Your task to perform on an android device: What's the news about the US stock market? Image 0: 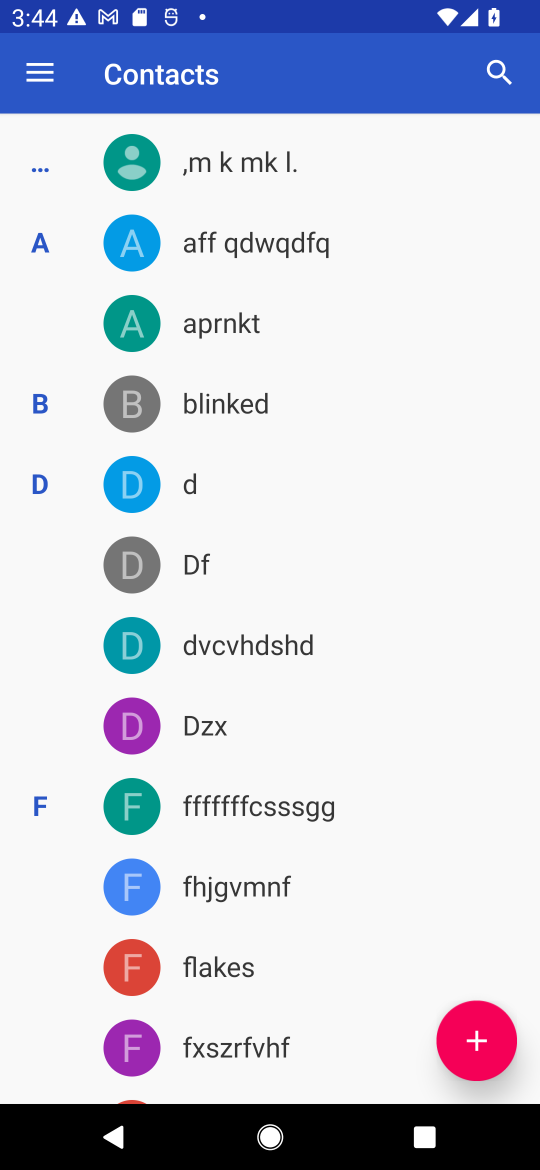
Step 0: press home button
Your task to perform on an android device: What's the news about the US stock market? Image 1: 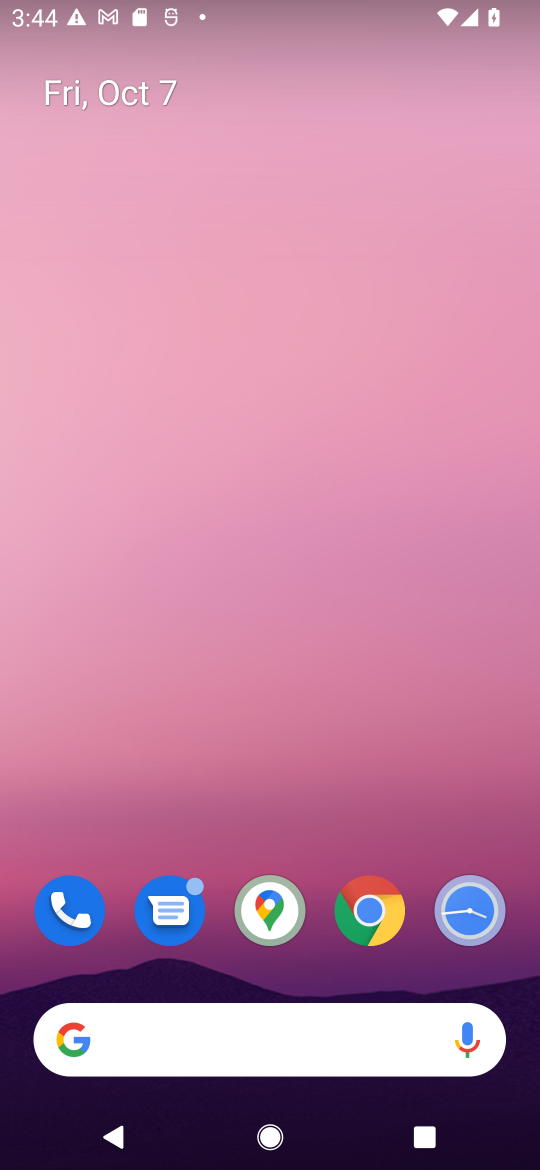
Step 1: drag from (272, 946) to (289, 359)
Your task to perform on an android device: What's the news about the US stock market? Image 2: 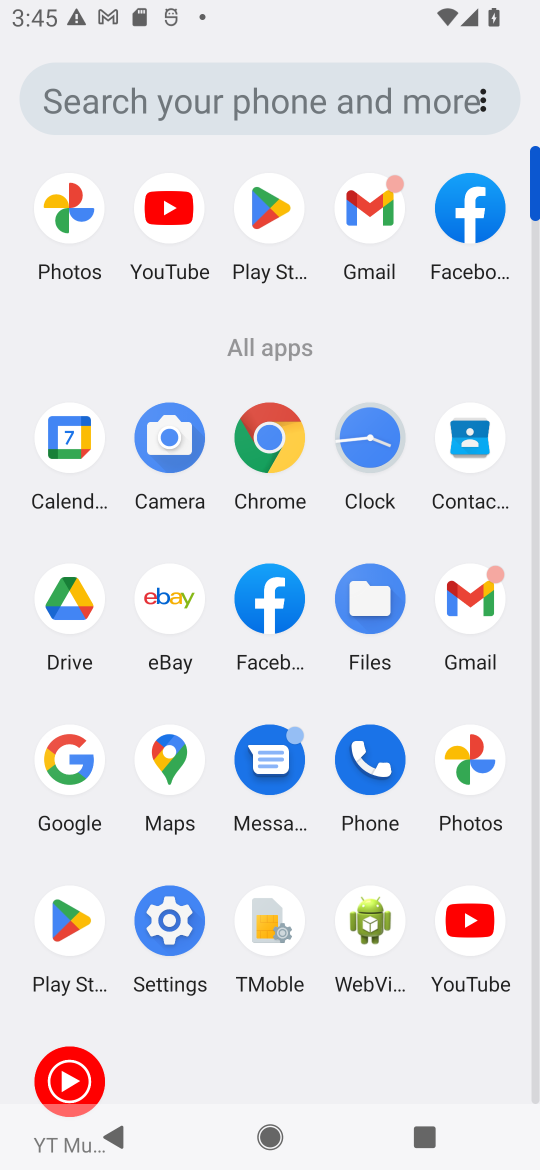
Step 2: click (66, 751)
Your task to perform on an android device: What's the news about the US stock market? Image 3: 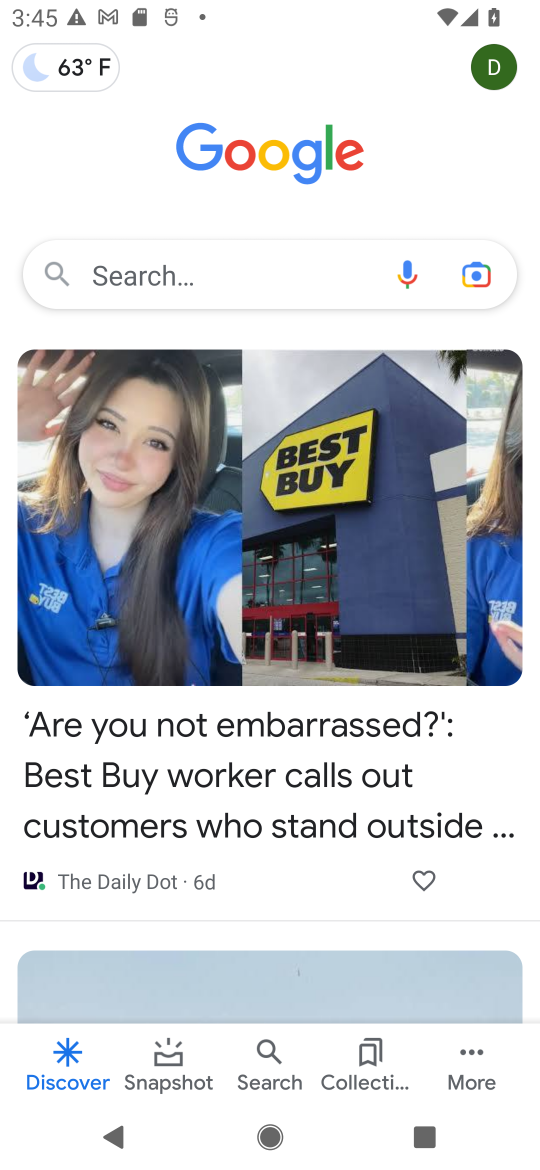
Step 3: click (199, 259)
Your task to perform on an android device: What's the news about the US stock market? Image 4: 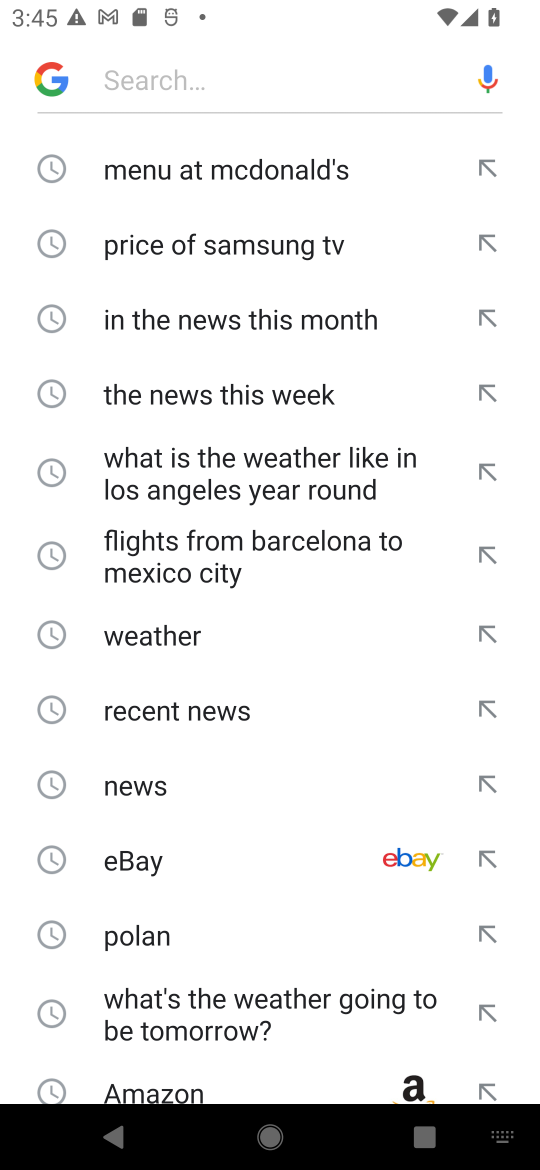
Step 4: click (139, 88)
Your task to perform on an android device: What's the news about the US stock market? Image 5: 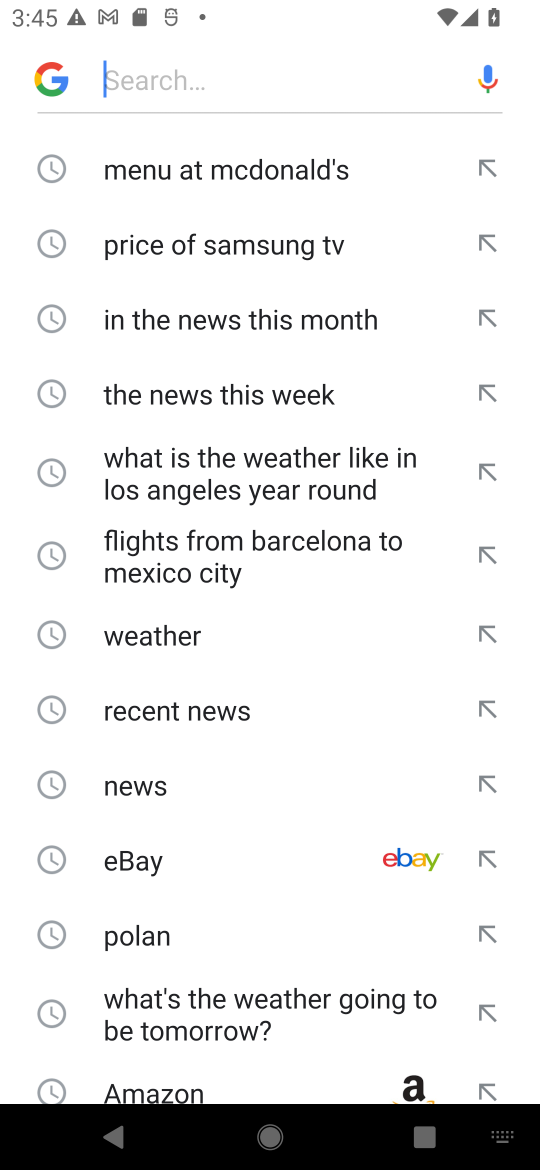
Step 5: type "the news about the US stock market"
Your task to perform on an android device: What's the news about the US stock market? Image 6: 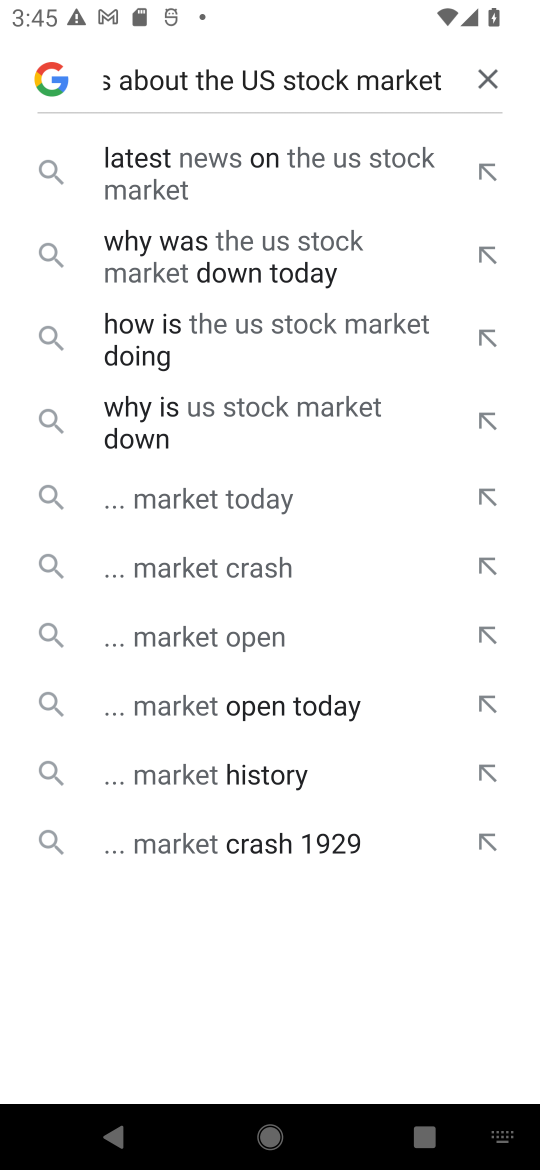
Step 6: click (324, 170)
Your task to perform on an android device: What's the news about the US stock market? Image 7: 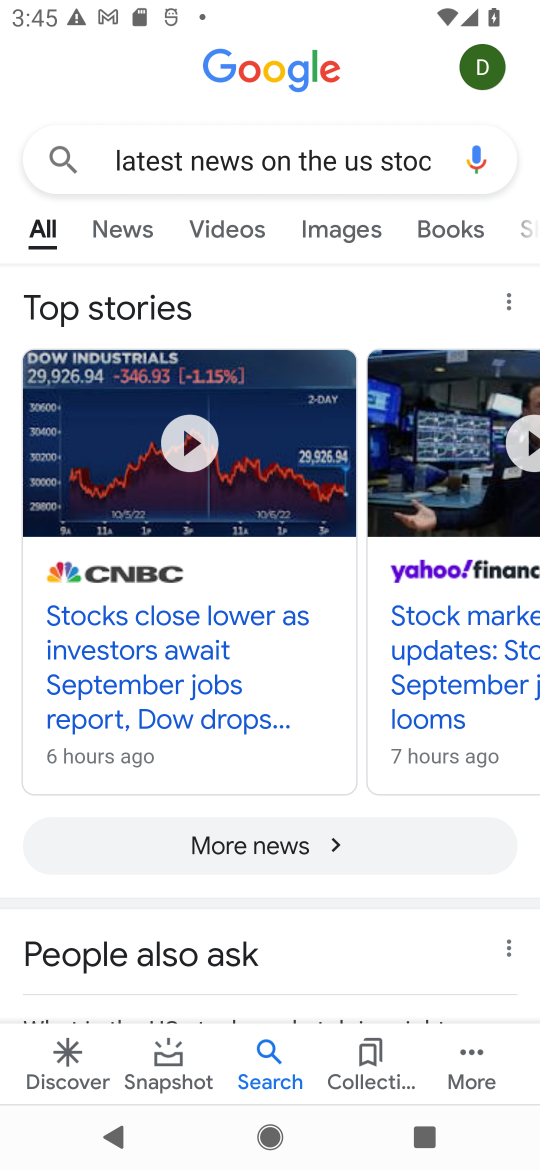
Step 7: click (131, 236)
Your task to perform on an android device: What's the news about the US stock market? Image 8: 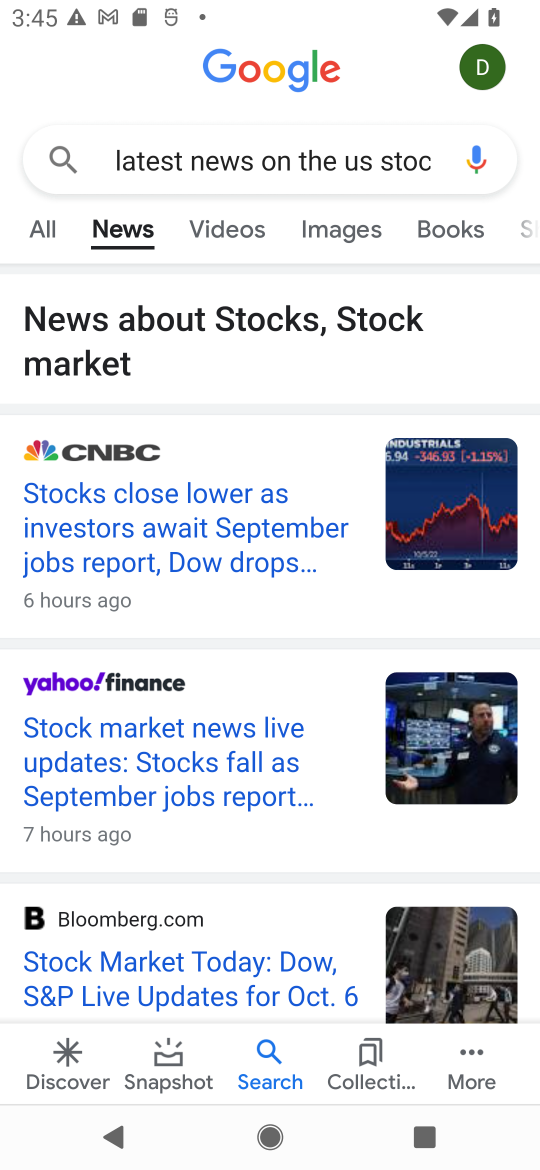
Step 8: task complete